Your task to perform on an android device: Turn off the flashlight Image 0: 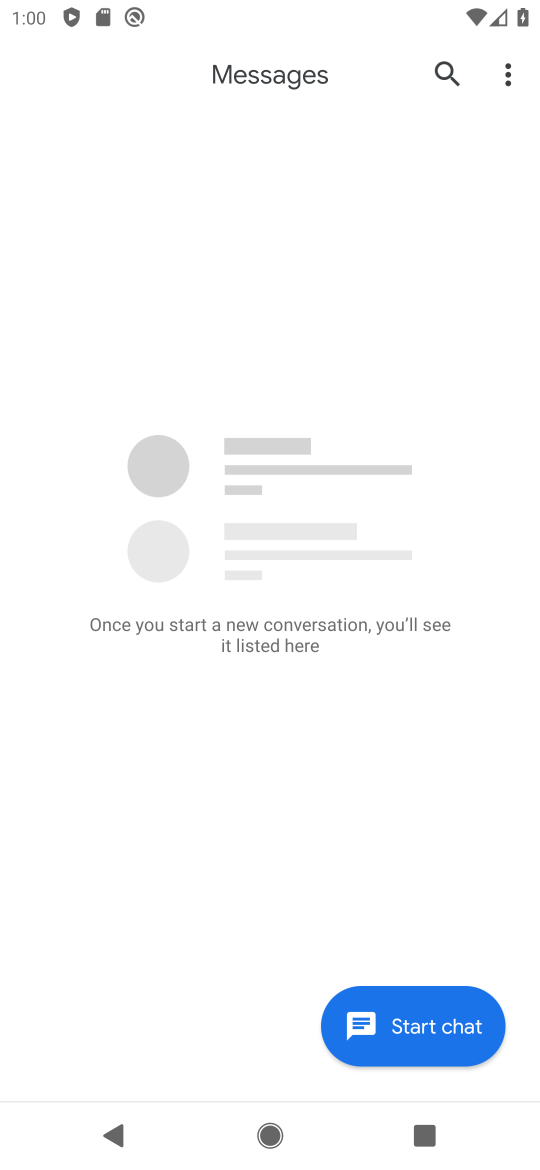
Step 0: task impossible